Your task to perform on an android device: turn off wifi Image 0: 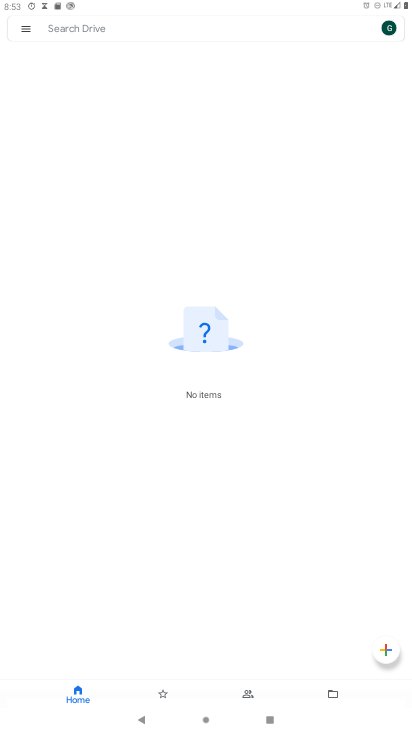
Step 0: press home button
Your task to perform on an android device: turn off wifi Image 1: 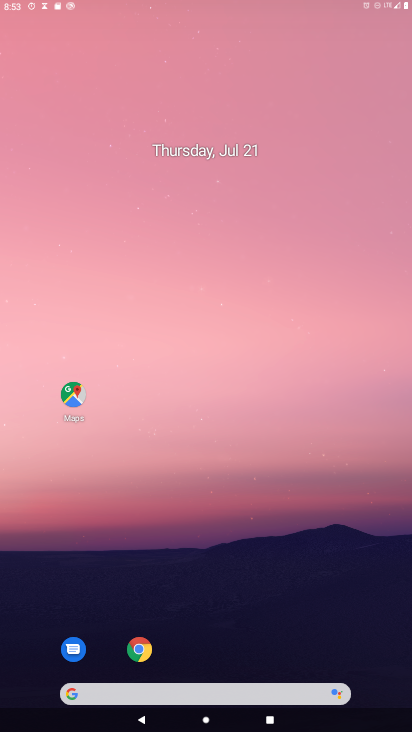
Step 1: task complete